Your task to perform on an android device: turn off data saver in the chrome app Image 0: 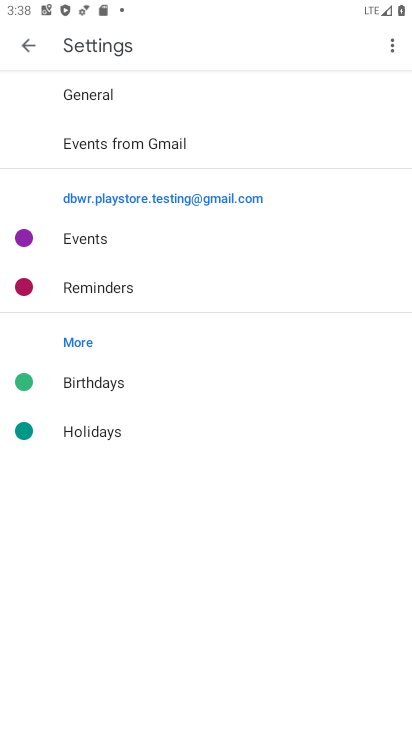
Step 0: press back button
Your task to perform on an android device: turn off data saver in the chrome app Image 1: 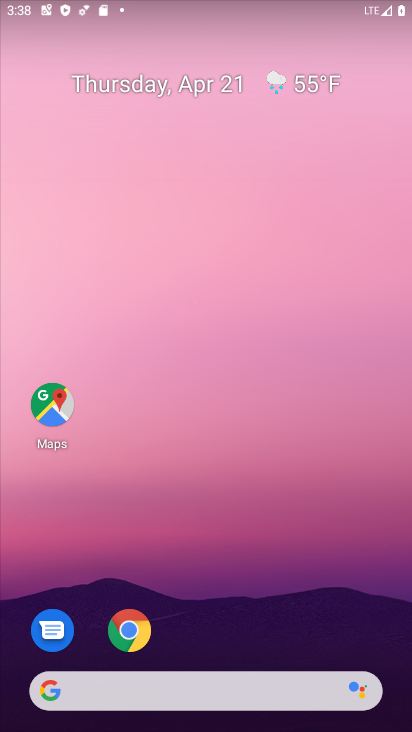
Step 1: click (131, 640)
Your task to perform on an android device: turn off data saver in the chrome app Image 2: 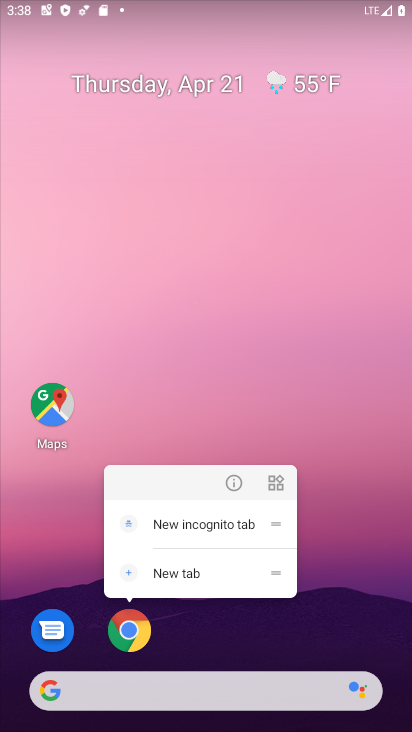
Step 2: click (130, 631)
Your task to perform on an android device: turn off data saver in the chrome app Image 3: 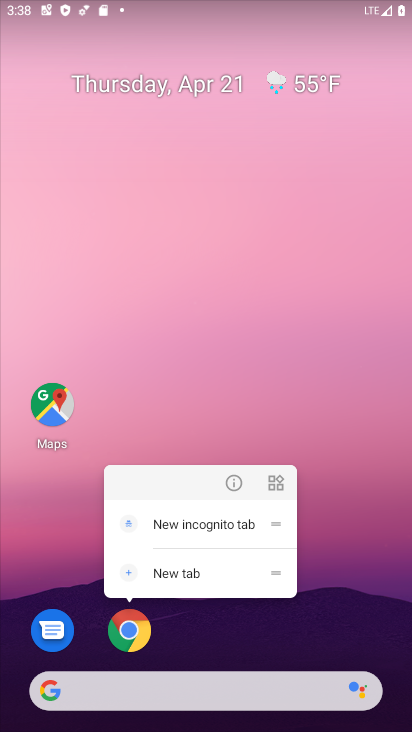
Step 3: click (130, 631)
Your task to perform on an android device: turn off data saver in the chrome app Image 4: 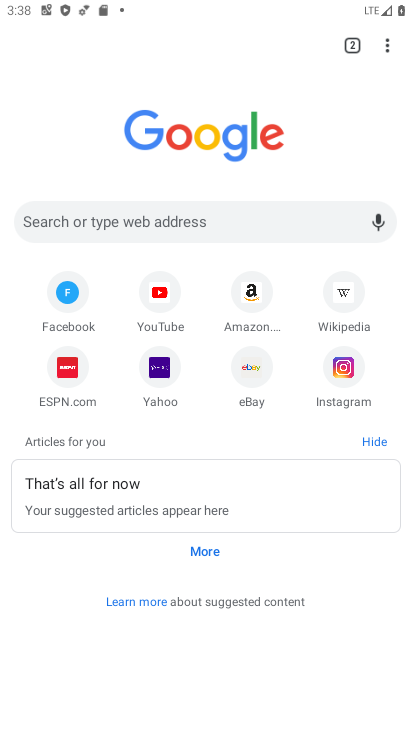
Step 4: drag from (386, 44) to (242, 423)
Your task to perform on an android device: turn off data saver in the chrome app Image 5: 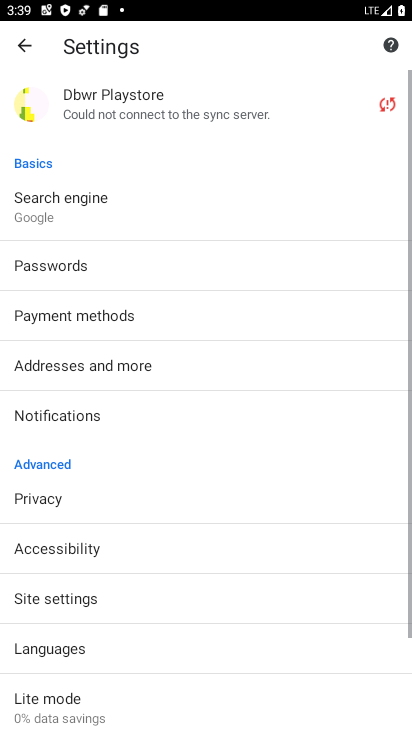
Step 5: click (34, 711)
Your task to perform on an android device: turn off data saver in the chrome app Image 6: 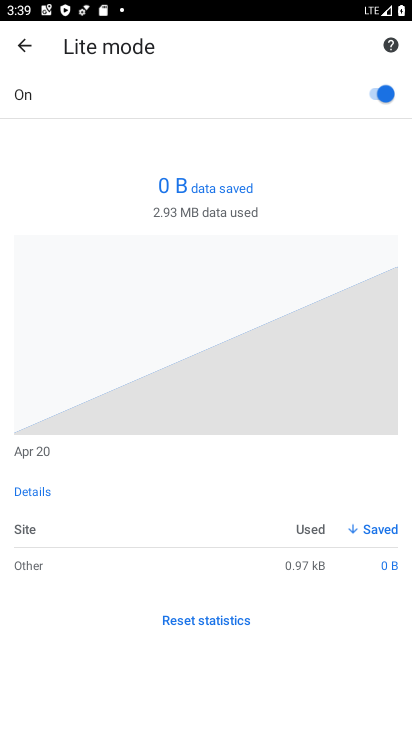
Step 6: click (390, 98)
Your task to perform on an android device: turn off data saver in the chrome app Image 7: 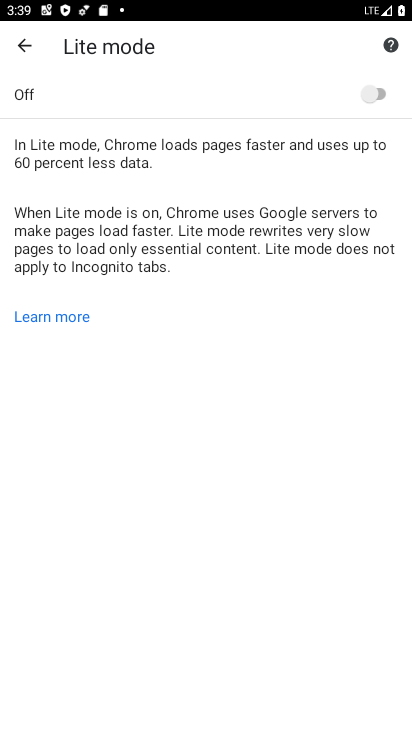
Step 7: task complete